Your task to perform on an android device: change notification settings in the gmail app Image 0: 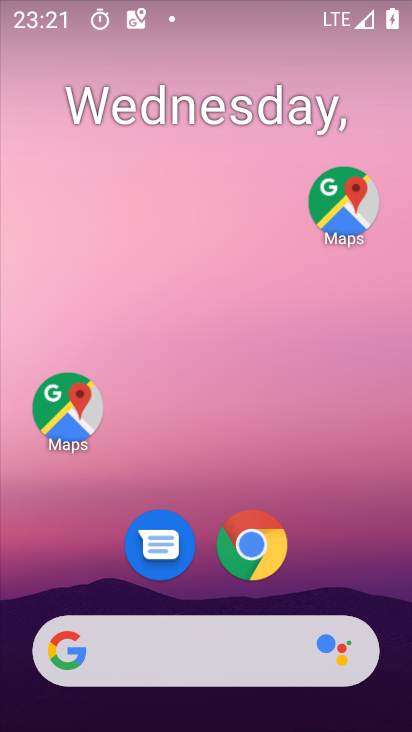
Step 0: drag from (326, 607) to (289, 64)
Your task to perform on an android device: change notification settings in the gmail app Image 1: 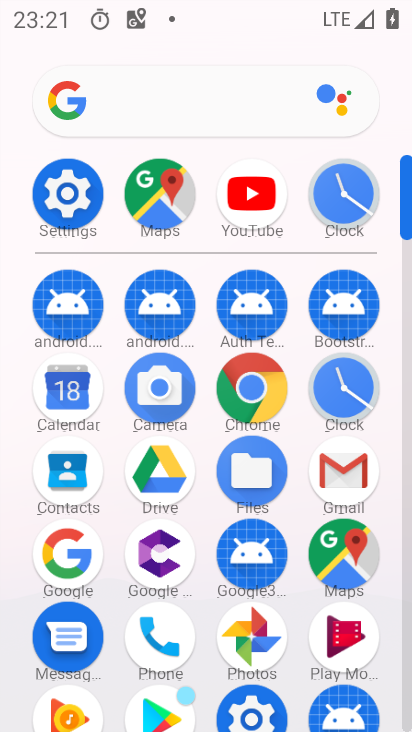
Step 1: click (337, 473)
Your task to perform on an android device: change notification settings in the gmail app Image 2: 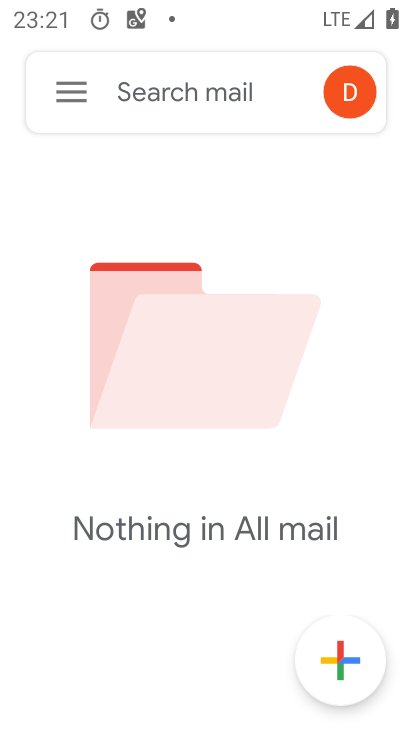
Step 2: click (70, 100)
Your task to perform on an android device: change notification settings in the gmail app Image 3: 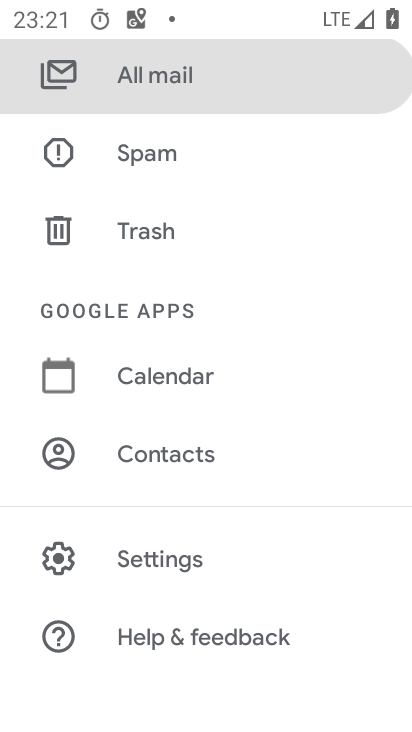
Step 3: click (136, 571)
Your task to perform on an android device: change notification settings in the gmail app Image 4: 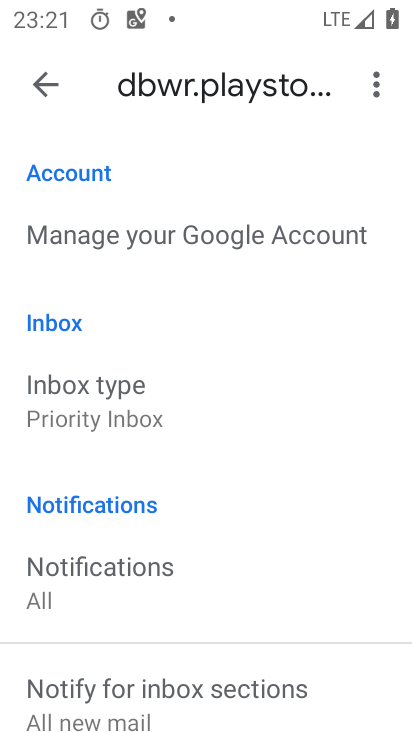
Step 4: drag from (59, 633) to (154, 212)
Your task to perform on an android device: change notification settings in the gmail app Image 5: 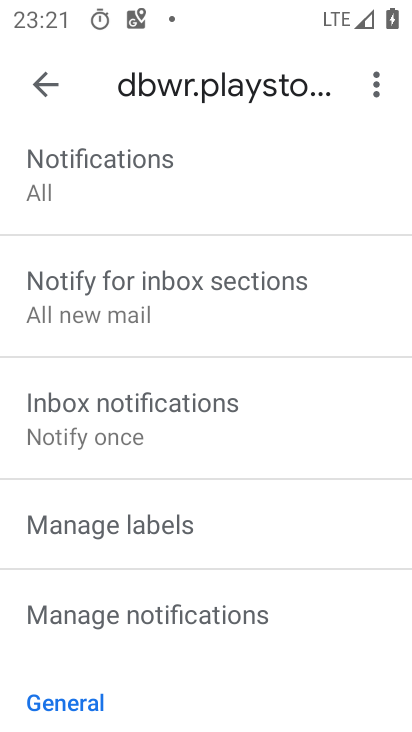
Step 5: click (68, 619)
Your task to perform on an android device: change notification settings in the gmail app Image 6: 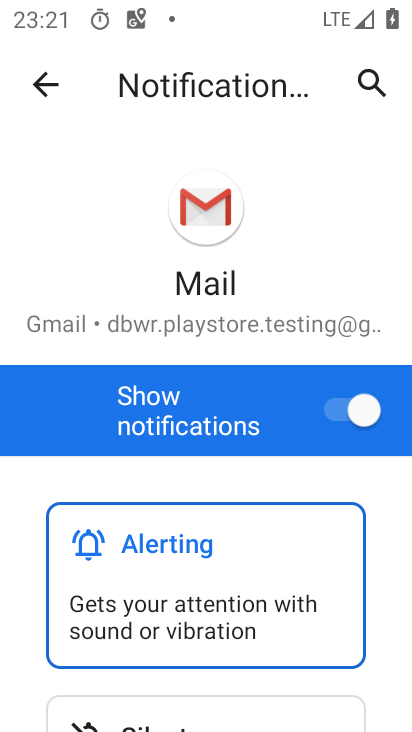
Step 6: click (339, 417)
Your task to perform on an android device: change notification settings in the gmail app Image 7: 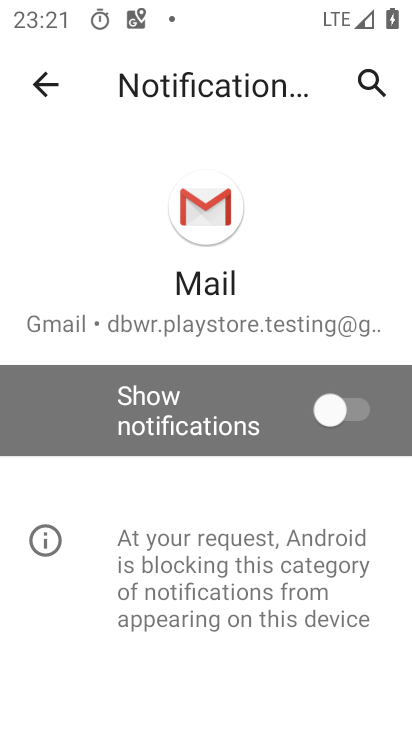
Step 7: task complete